Your task to perform on an android device: set the stopwatch Image 0: 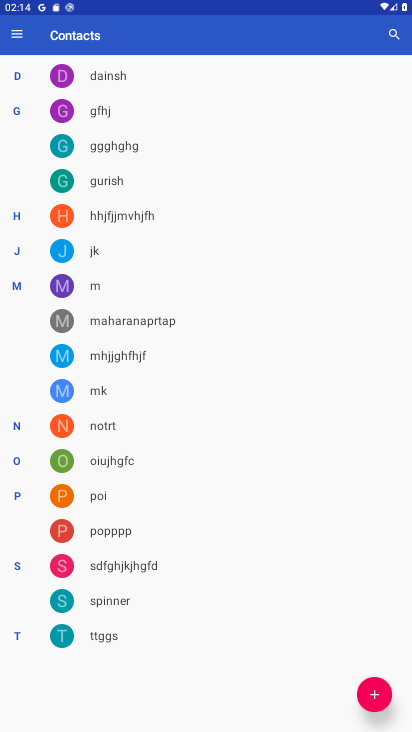
Step 0: press home button
Your task to perform on an android device: set the stopwatch Image 1: 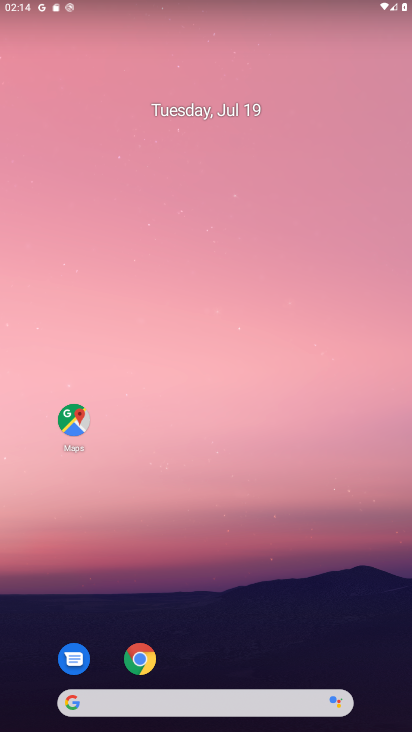
Step 1: drag from (206, 694) to (263, 306)
Your task to perform on an android device: set the stopwatch Image 2: 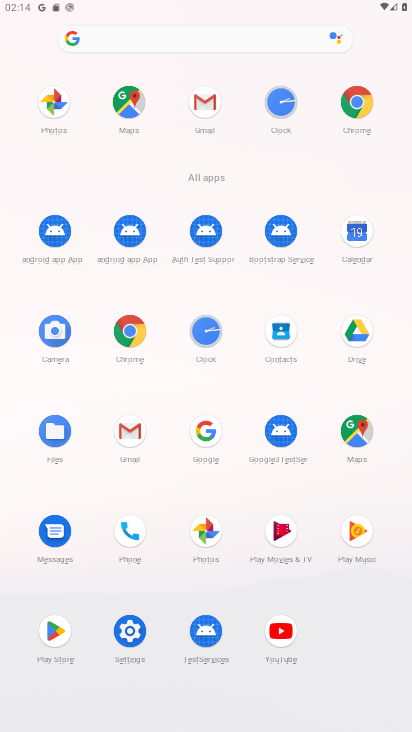
Step 2: click (279, 101)
Your task to perform on an android device: set the stopwatch Image 3: 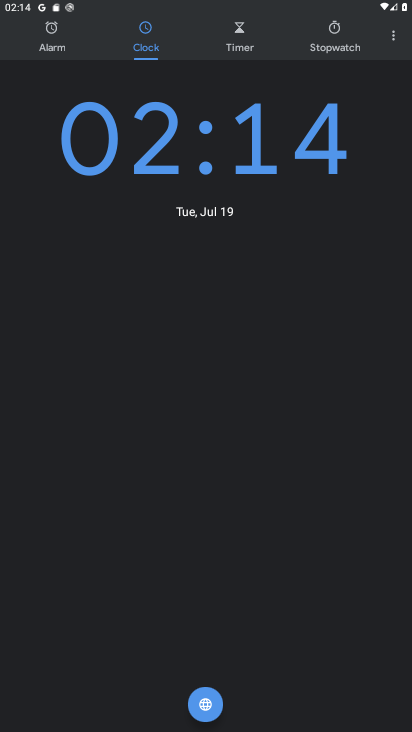
Step 3: click (326, 50)
Your task to perform on an android device: set the stopwatch Image 4: 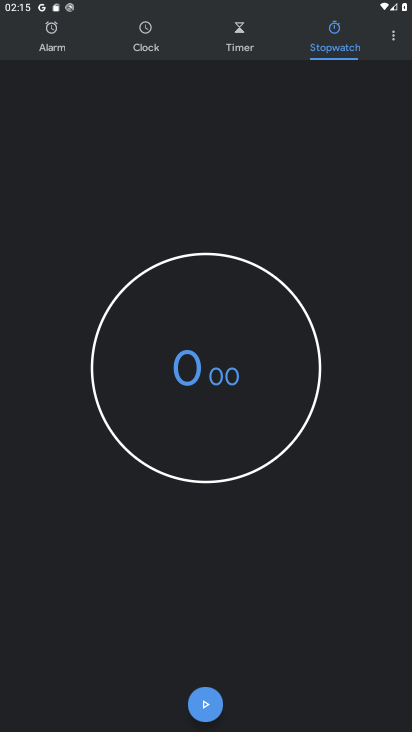
Step 4: task complete